Your task to perform on an android device: check android version Image 0: 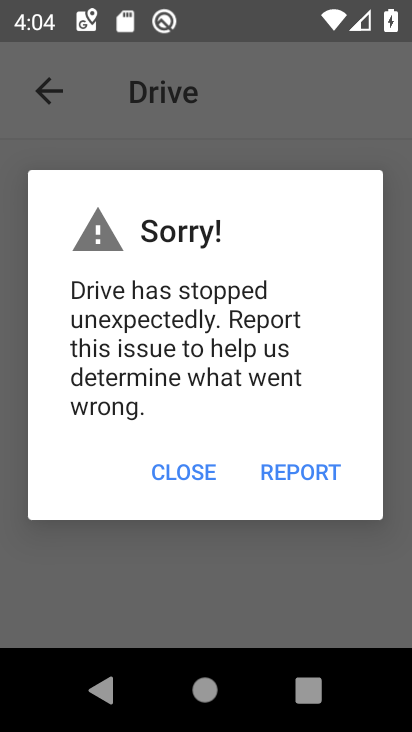
Step 0: press home button
Your task to perform on an android device: check android version Image 1: 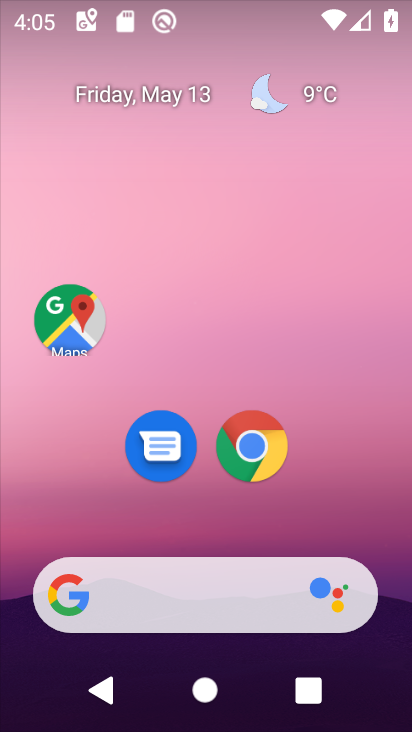
Step 1: drag from (297, 527) to (395, 1)
Your task to perform on an android device: check android version Image 2: 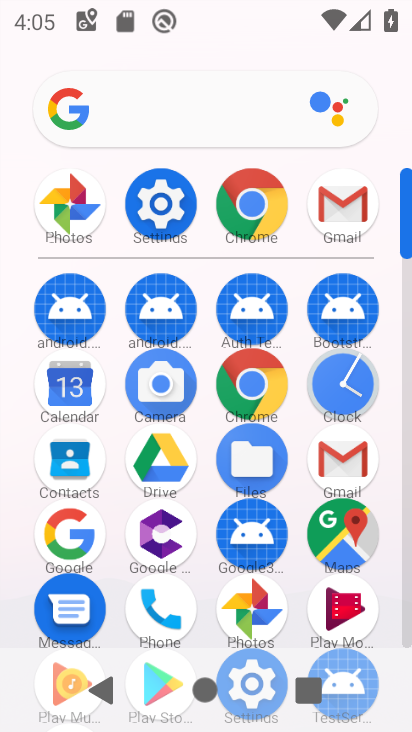
Step 2: click (175, 203)
Your task to perform on an android device: check android version Image 3: 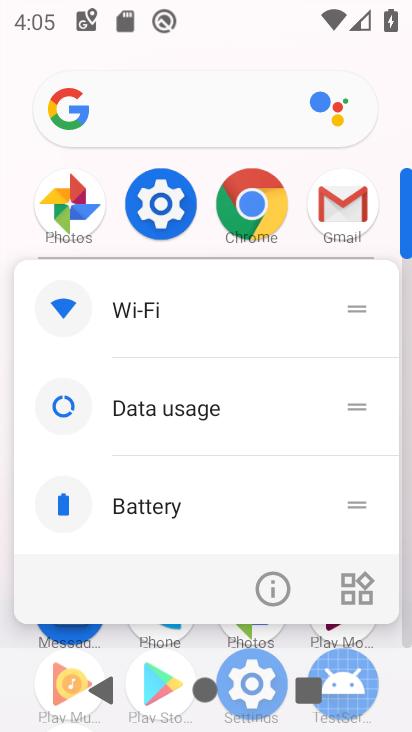
Step 3: click (175, 203)
Your task to perform on an android device: check android version Image 4: 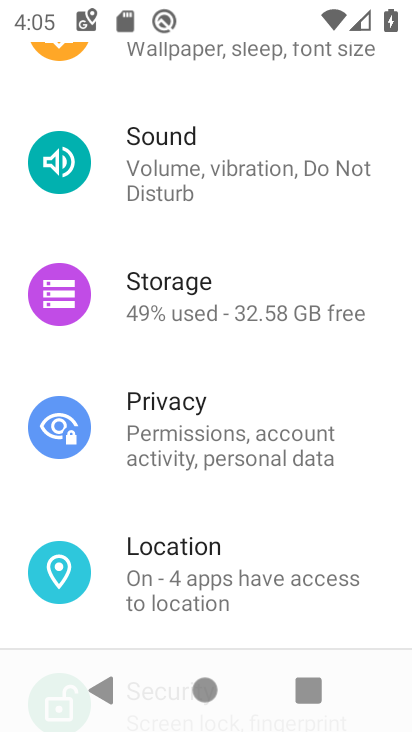
Step 4: drag from (218, 578) to (287, 158)
Your task to perform on an android device: check android version Image 5: 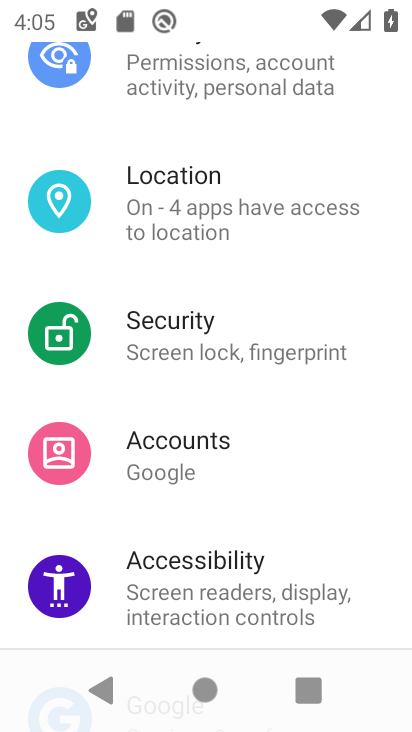
Step 5: drag from (234, 569) to (260, 133)
Your task to perform on an android device: check android version Image 6: 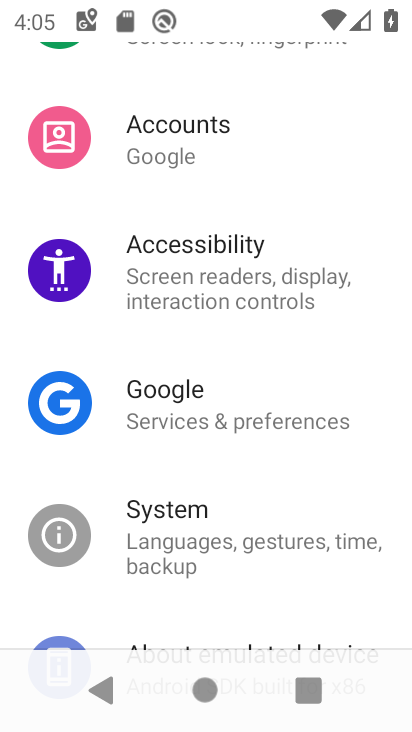
Step 6: drag from (193, 543) to (254, 168)
Your task to perform on an android device: check android version Image 7: 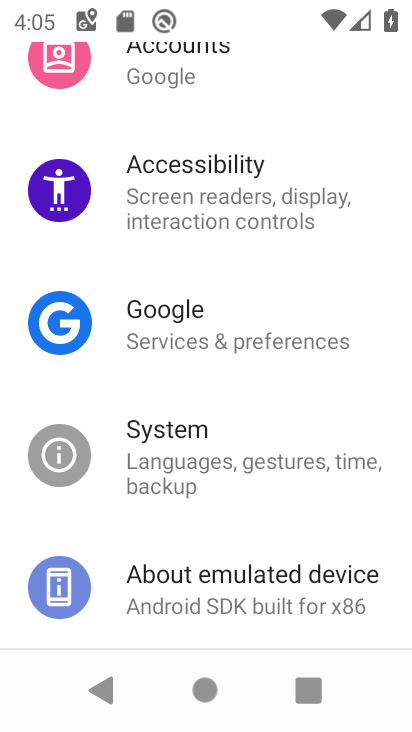
Step 7: click (193, 614)
Your task to perform on an android device: check android version Image 8: 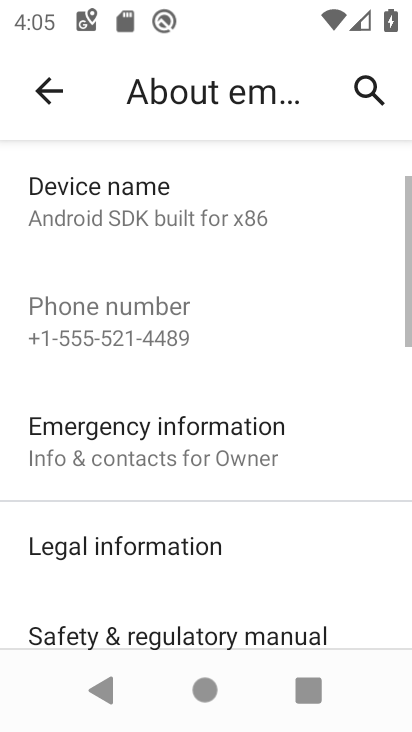
Step 8: drag from (272, 556) to (330, 58)
Your task to perform on an android device: check android version Image 9: 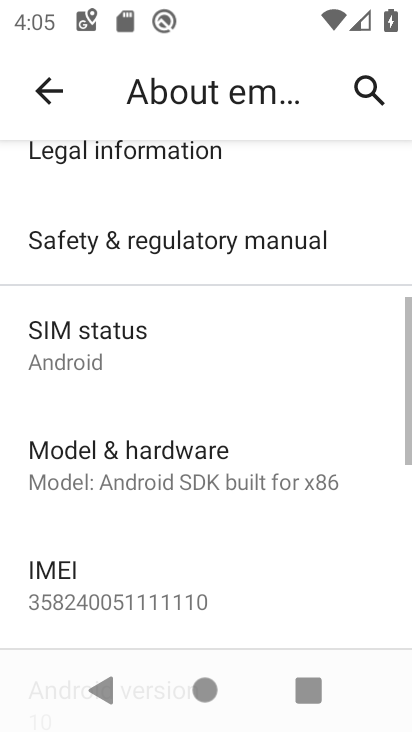
Step 9: drag from (258, 558) to (319, 192)
Your task to perform on an android device: check android version Image 10: 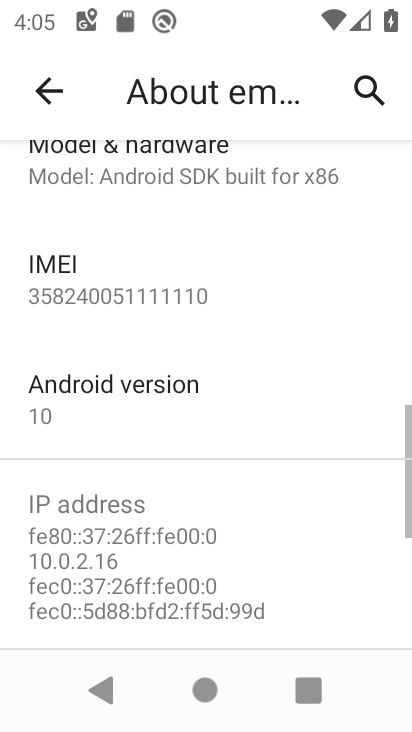
Step 10: click (192, 417)
Your task to perform on an android device: check android version Image 11: 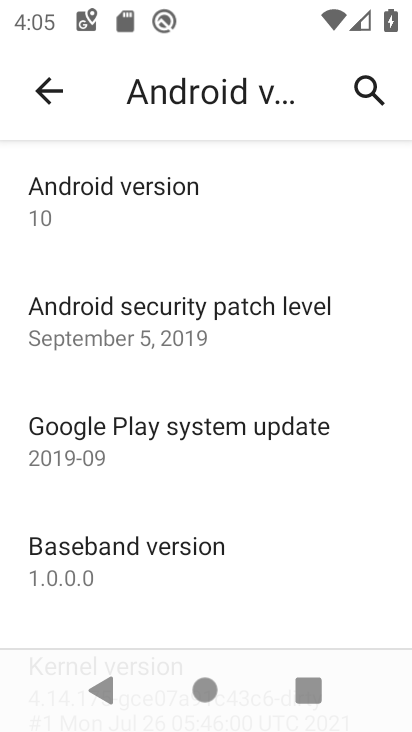
Step 11: click (156, 214)
Your task to perform on an android device: check android version Image 12: 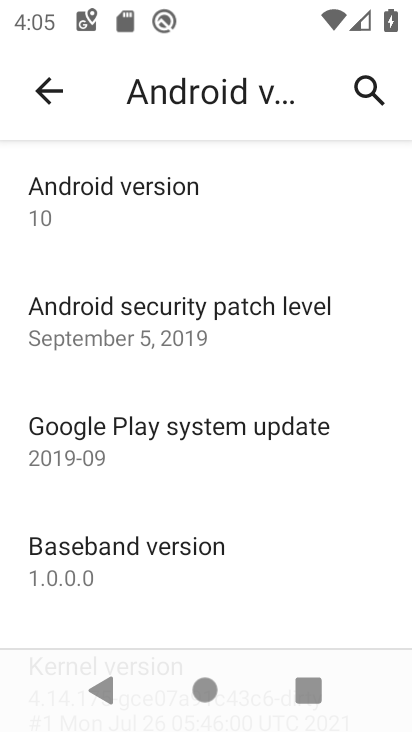
Step 12: task complete